Your task to perform on an android device: set an alarm Image 0: 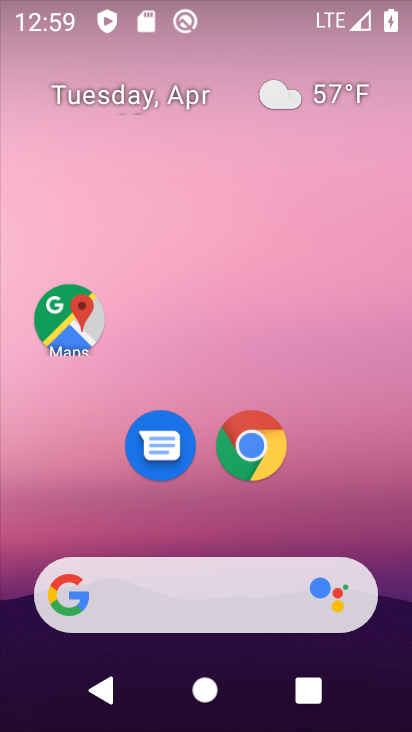
Step 0: drag from (313, 353) to (292, 26)
Your task to perform on an android device: set an alarm Image 1: 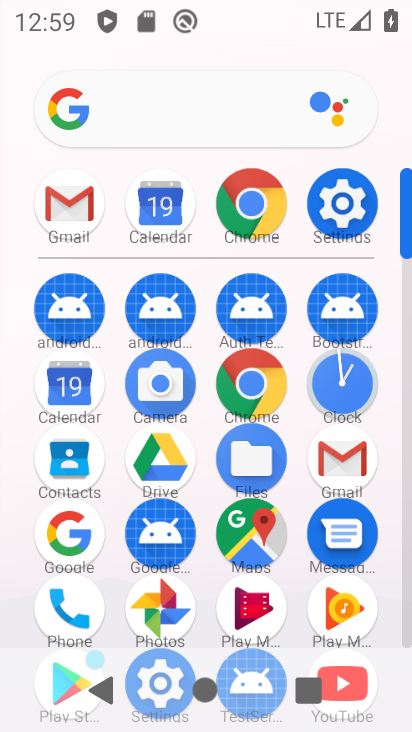
Step 1: click (332, 371)
Your task to perform on an android device: set an alarm Image 2: 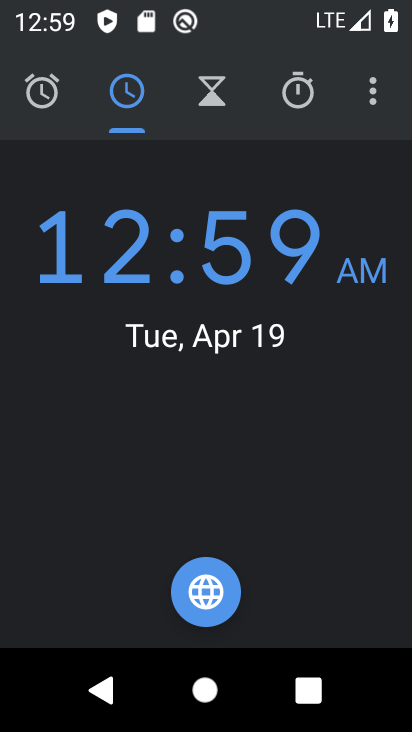
Step 2: click (43, 92)
Your task to perform on an android device: set an alarm Image 3: 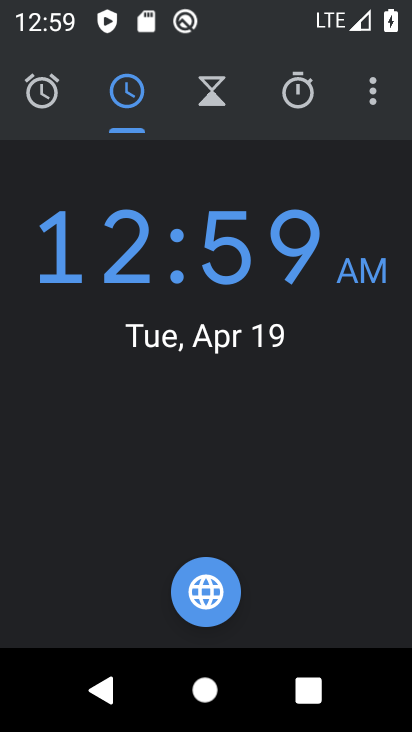
Step 3: click (43, 92)
Your task to perform on an android device: set an alarm Image 4: 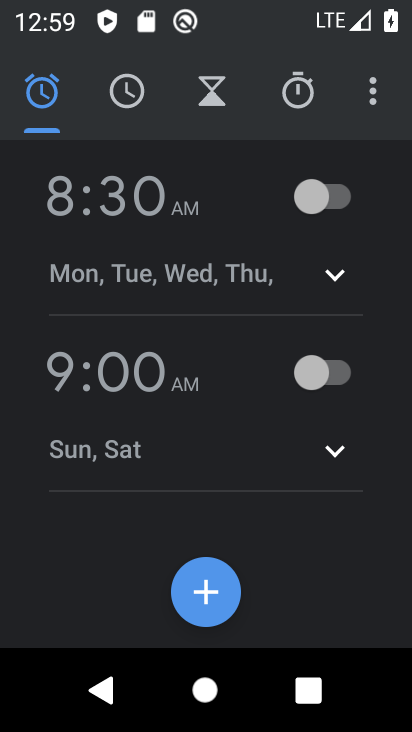
Step 4: click (200, 596)
Your task to perform on an android device: set an alarm Image 5: 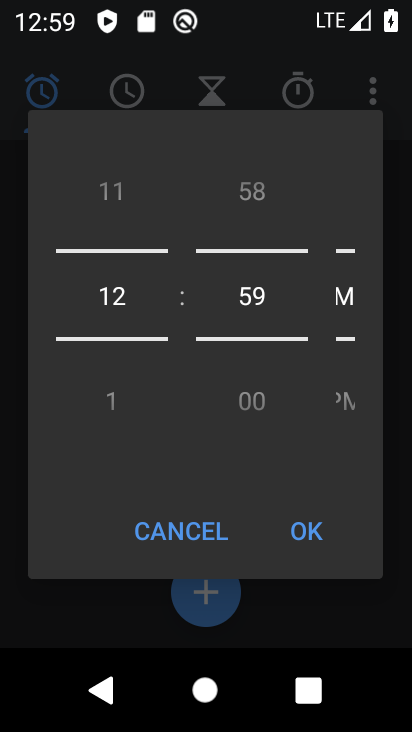
Step 5: click (311, 526)
Your task to perform on an android device: set an alarm Image 6: 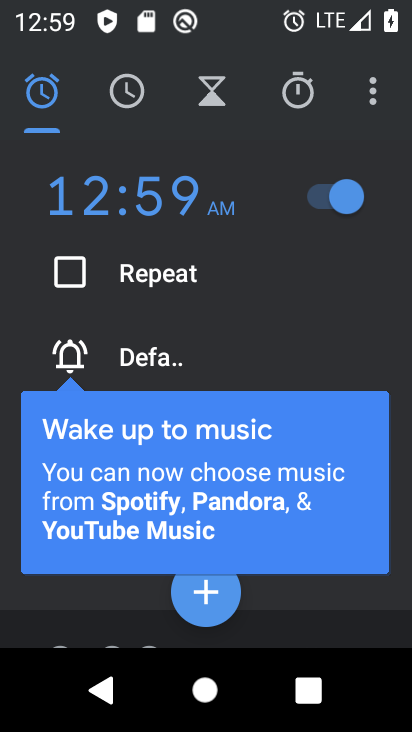
Step 6: task complete